Your task to perform on an android device: turn off picture-in-picture Image 0: 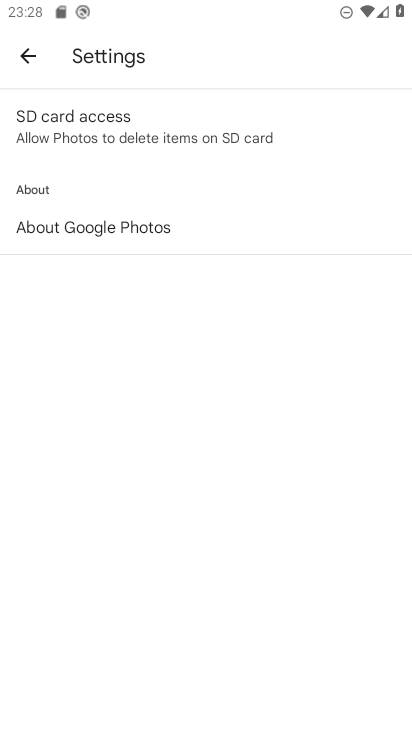
Step 0: press home button
Your task to perform on an android device: turn off picture-in-picture Image 1: 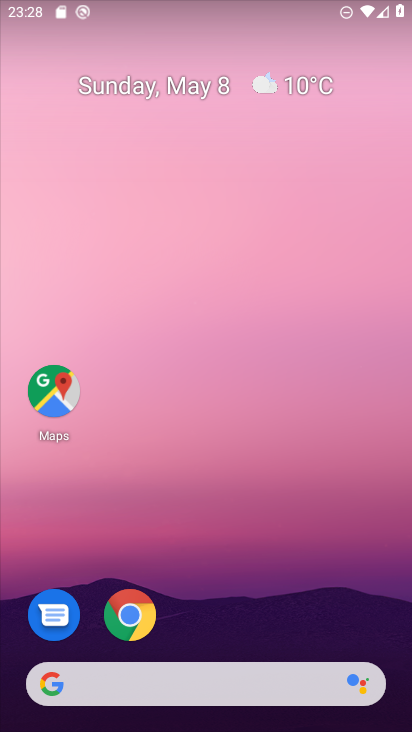
Step 1: drag from (119, 613) to (197, 511)
Your task to perform on an android device: turn off picture-in-picture Image 2: 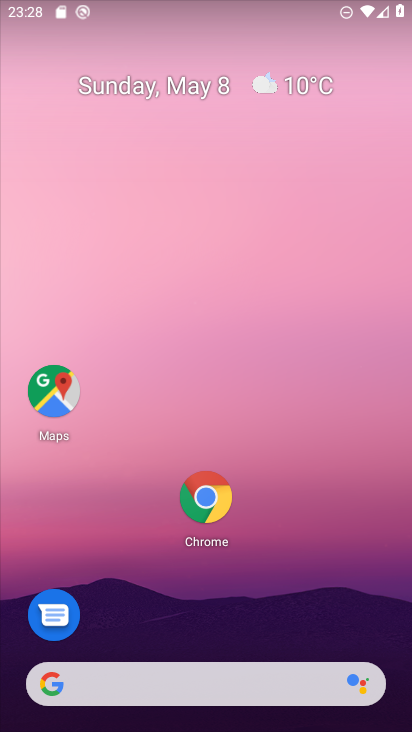
Step 2: drag from (208, 501) to (174, 475)
Your task to perform on an android device: turn off picture-in-picture Image 3: 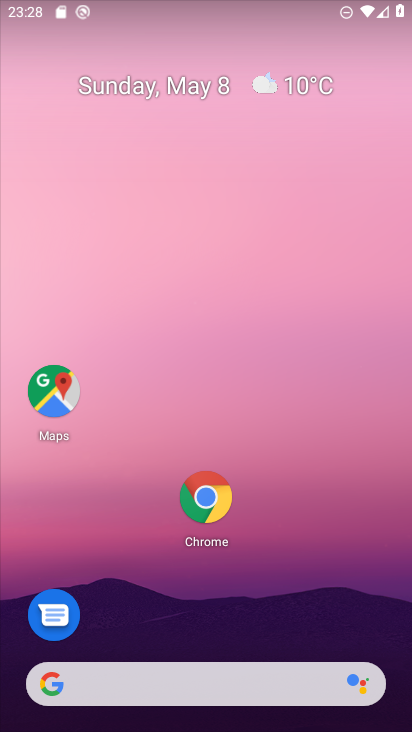
Step 3: click (206, 508)
Your task to perform on an android device: turn off picture-in-picture Image 4: 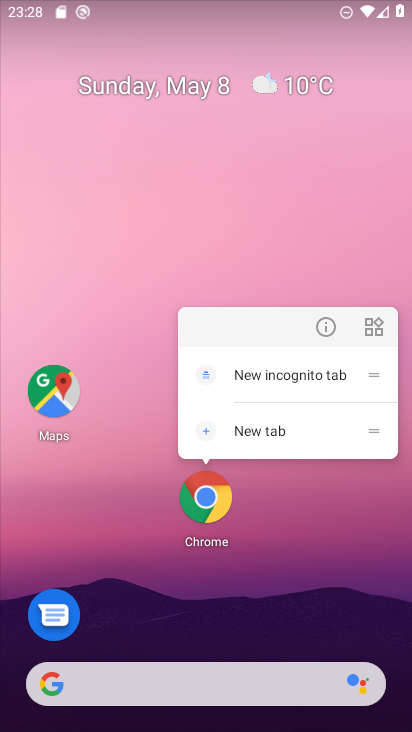
Step 4: click (318, 319)
Your task to perform on an android device: turn off picture-in-picture Image 5: 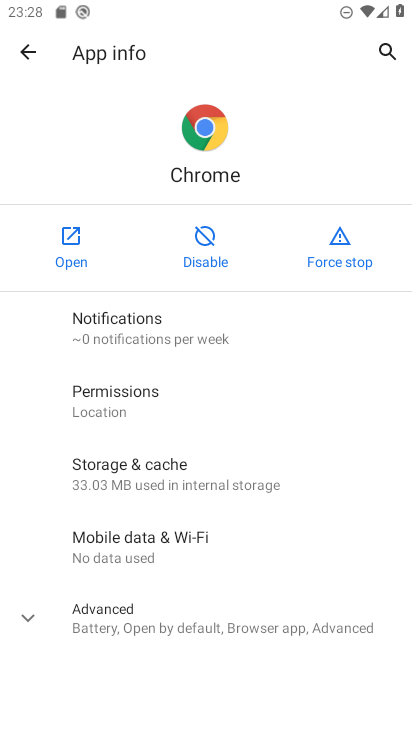
Step 5: drag from (186, 573) to (193, 1)
Your task to perform on an android device: turn off picture-in-picture Image 6: 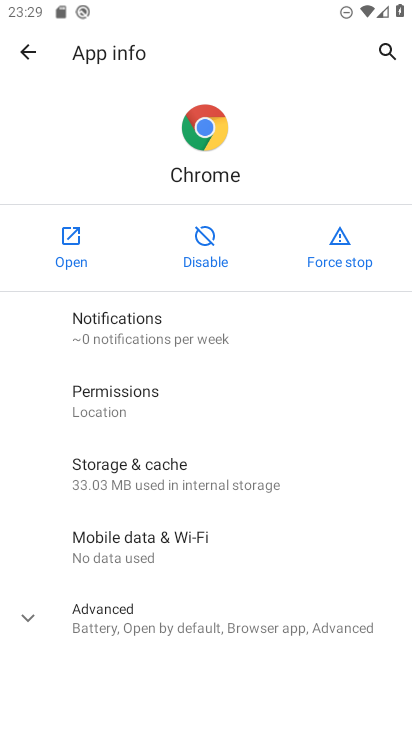
Step 6: drag from (81, 525) to (162, 45)
Your task to perform on an android device: turn off picture-in-picture Image 7: 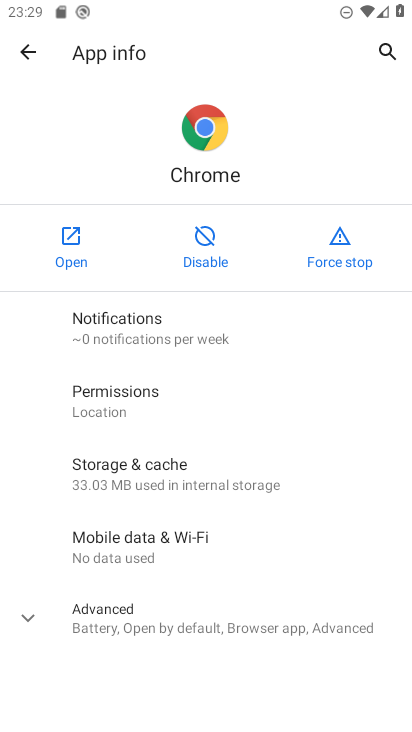
Step 7: click (99, 613)
Your task to perform on an android device: turn off picture-in-picture Image 8: 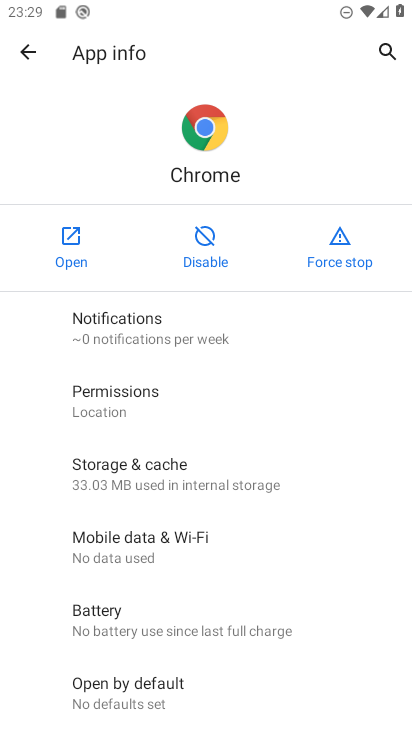
Step 8: drag from (147, 662) to (189, 226)
Your task to perform on an android device: turn off picture-in-picture Image 9: 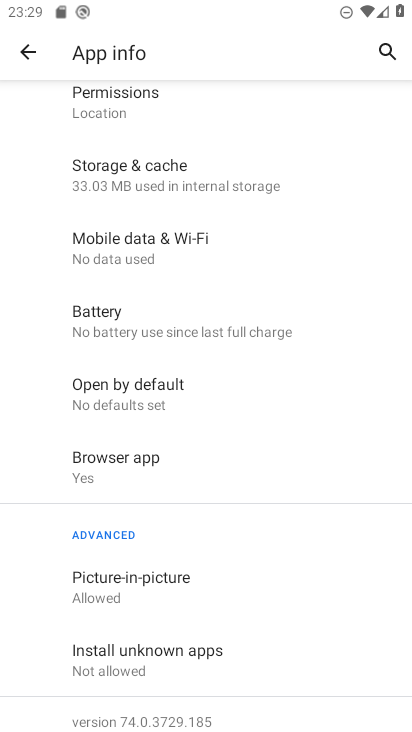
Step 9: click (169, 579)
Your task to perform on an android device: turn off picture-in-picture Image 10: 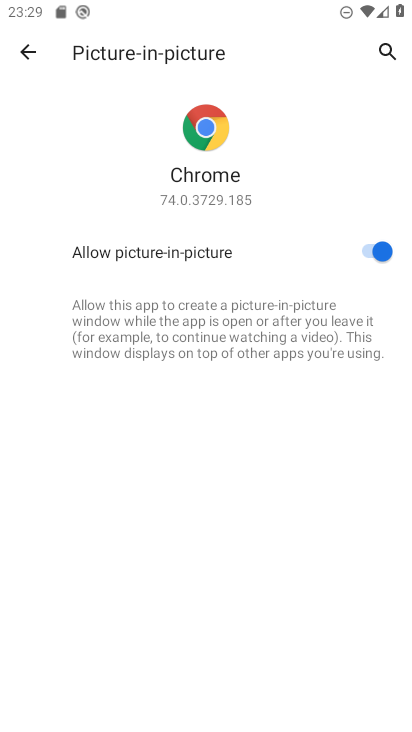
Step 10: click (391, 263)
Your task to perform on an android device: turn off picture-in-picture Image 11: 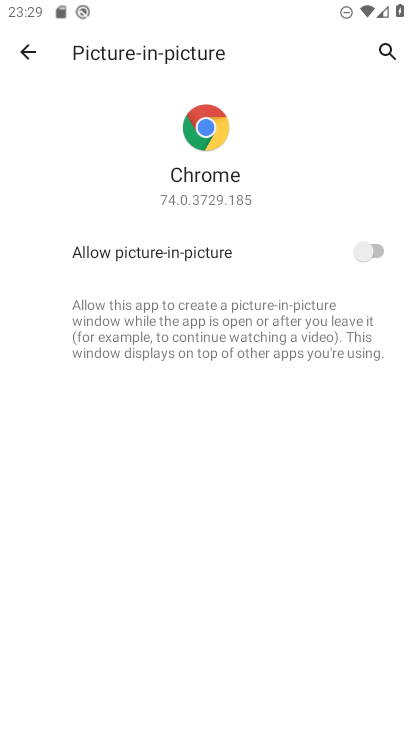
Step 11: task complete